Your task to perform on an android device: Open sound settings Image 0: 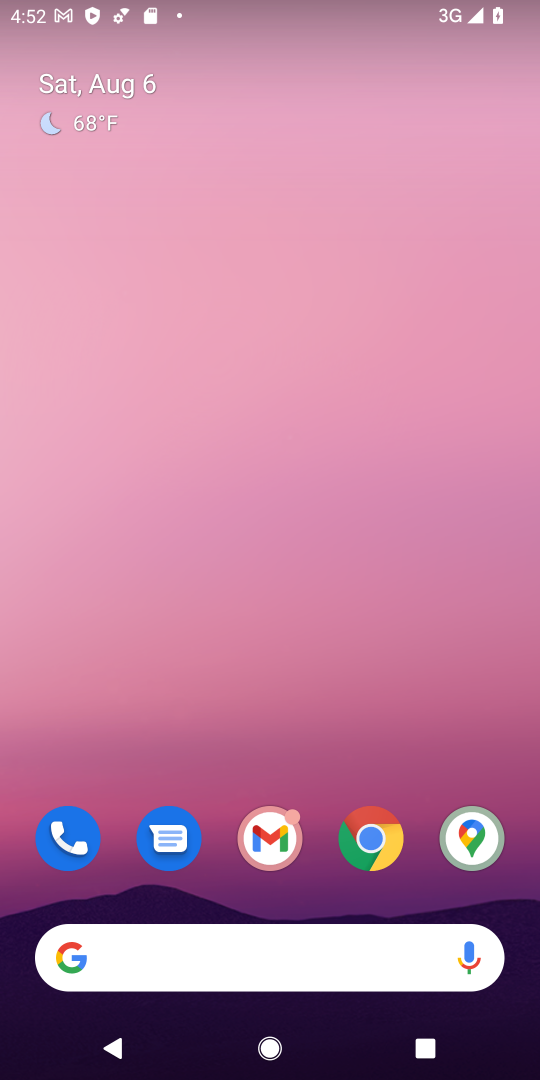
Step 0: drag from (122, 589) to (361, 112)
Your task to perform on an android device: Open sound settings Image 1: 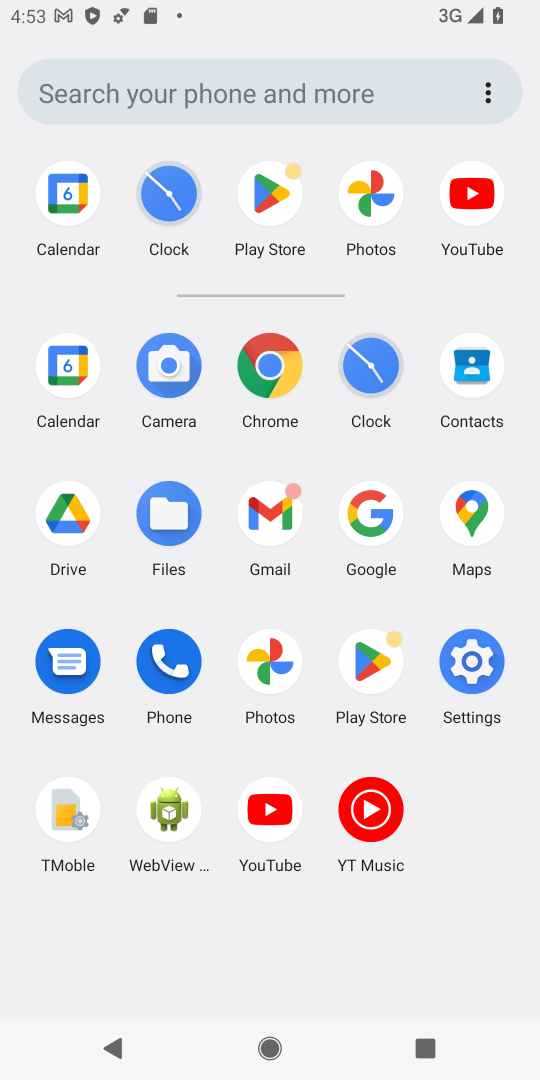
Step 1: click (470, 665)
Your task to perform on an android device: Open sound settings Image 2: 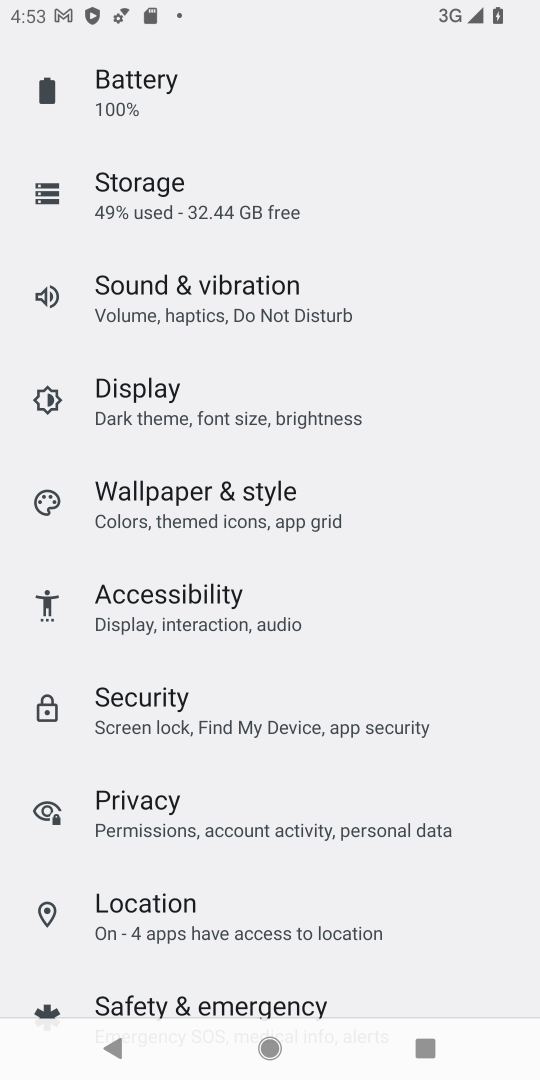
Step 2: click (115, 309)
Your task to perform on an android device: Open sound settings Image 3: 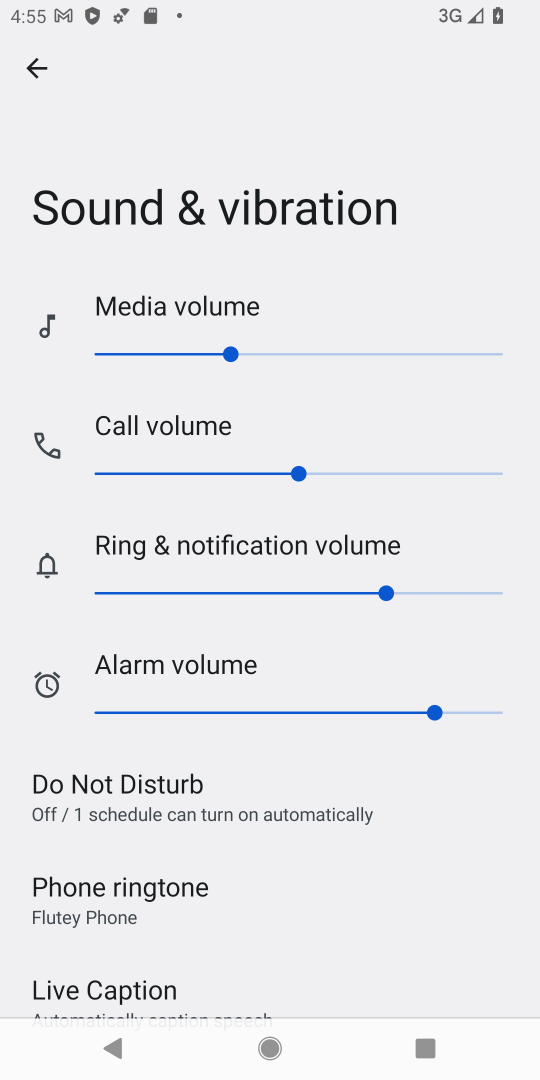
Step 3: task complete